Your task to perform on an android device: Do I have any events this weekend? Image 0: 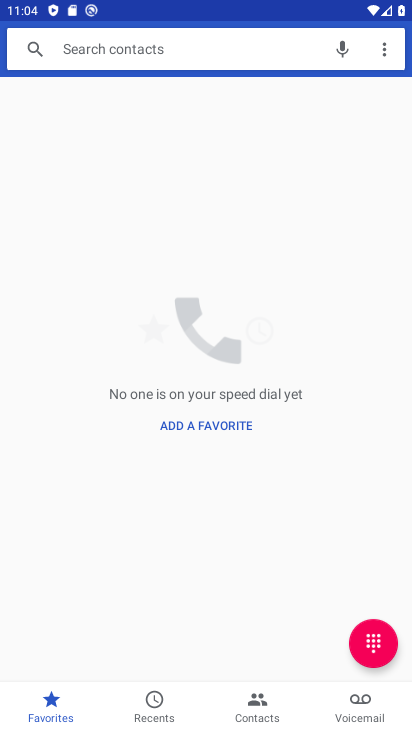
Step 0: press home button
Your task to perform on an android device: Do I have any events this weekend? Image 1: 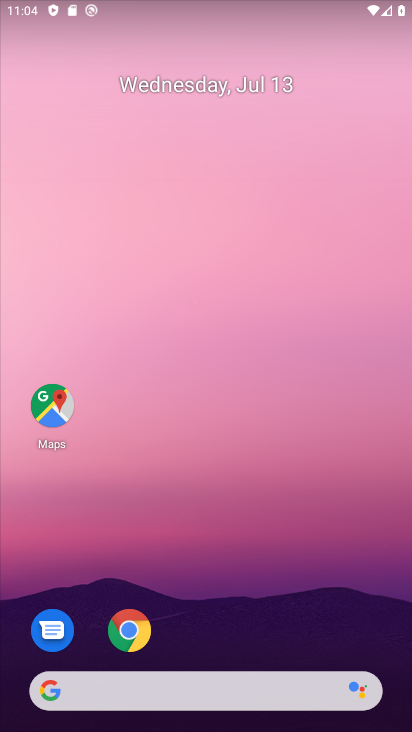
Step 1: drag from (337, 633) to (376, 176)
Your task to perform on an android device: Do I have any events this weekend? Image 2: 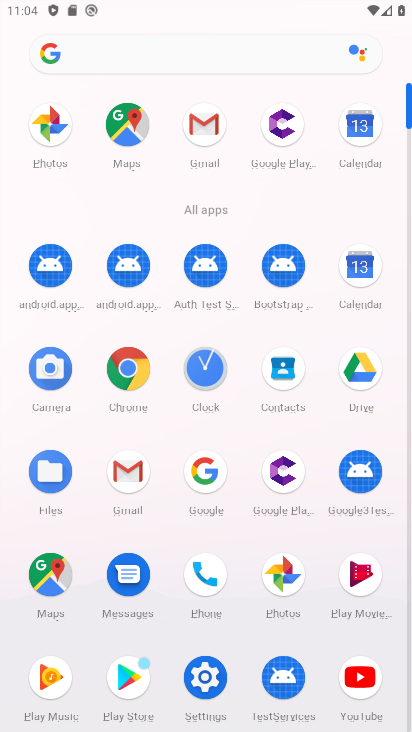
Step 2: click (369, 284)
Your task to perform on an android device: Do I have any events this weekend? Image 3: 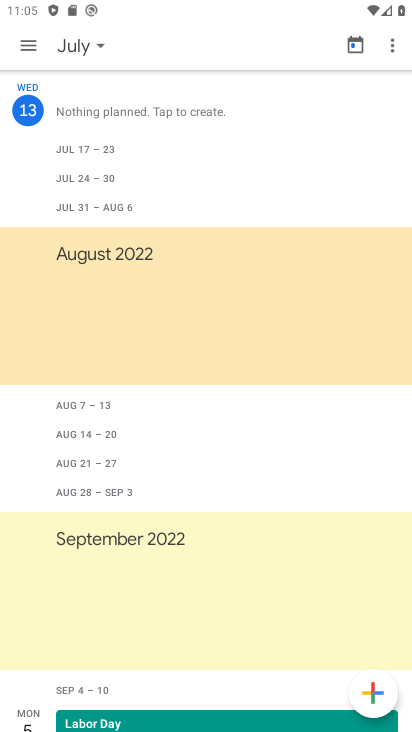
Step 3: task complete